Your task to perform on an android device: check battery use Image 0: 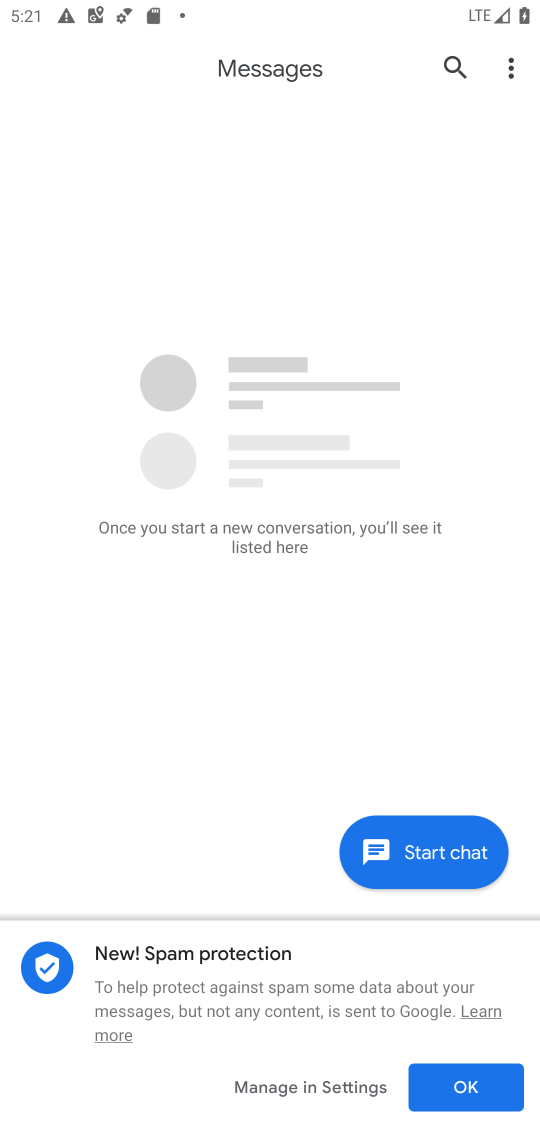
Step 0: press home button
Your task to perform on an android device: check battery use Image 1: 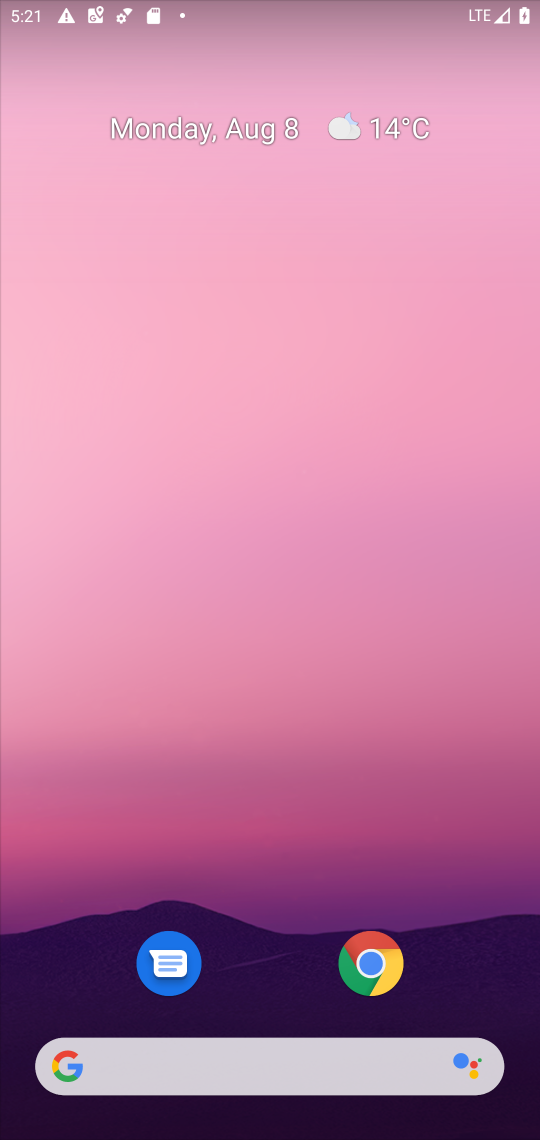
Step 1: drag from (334, 765) to (429, 1)
Your task to perform on an android device: check battery use Image 2: 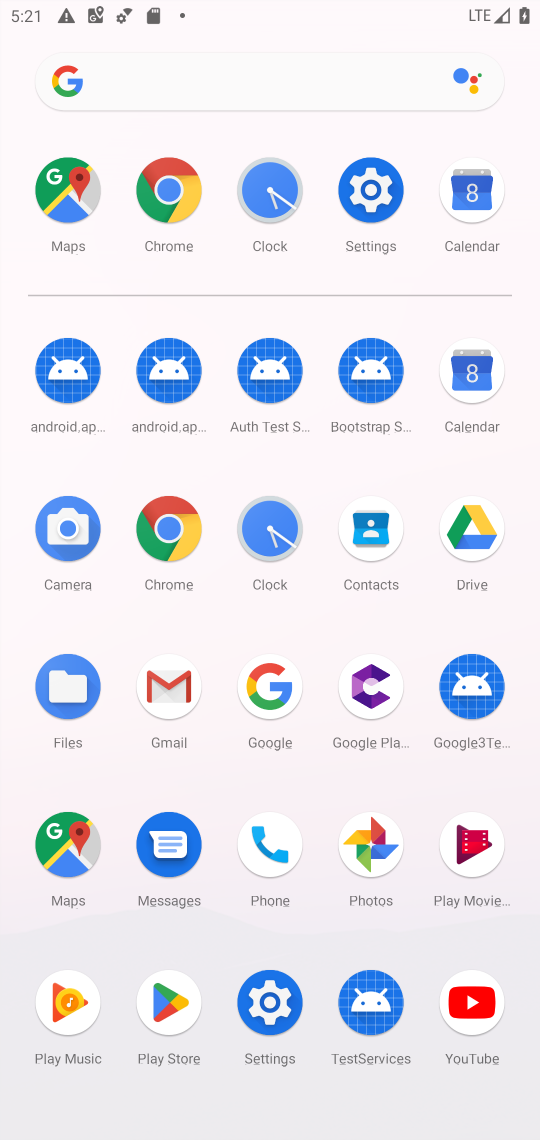
Step 2: click (366, 209)
Your task to perform on an android device: check battery use Image 3: 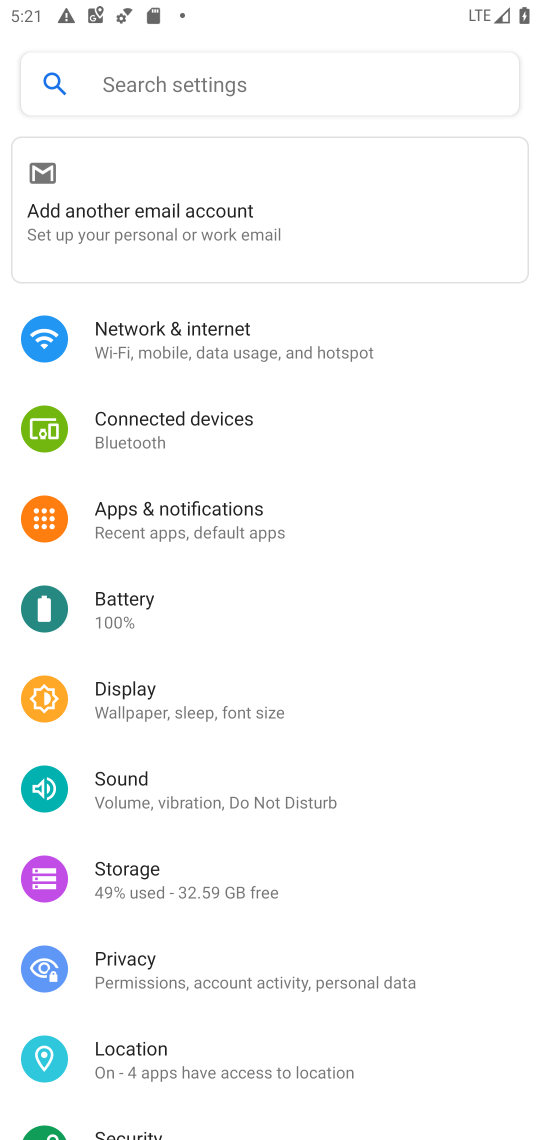
Step 3: click (181, 601)
Your task to perform on an android device: check battery use Image 4: 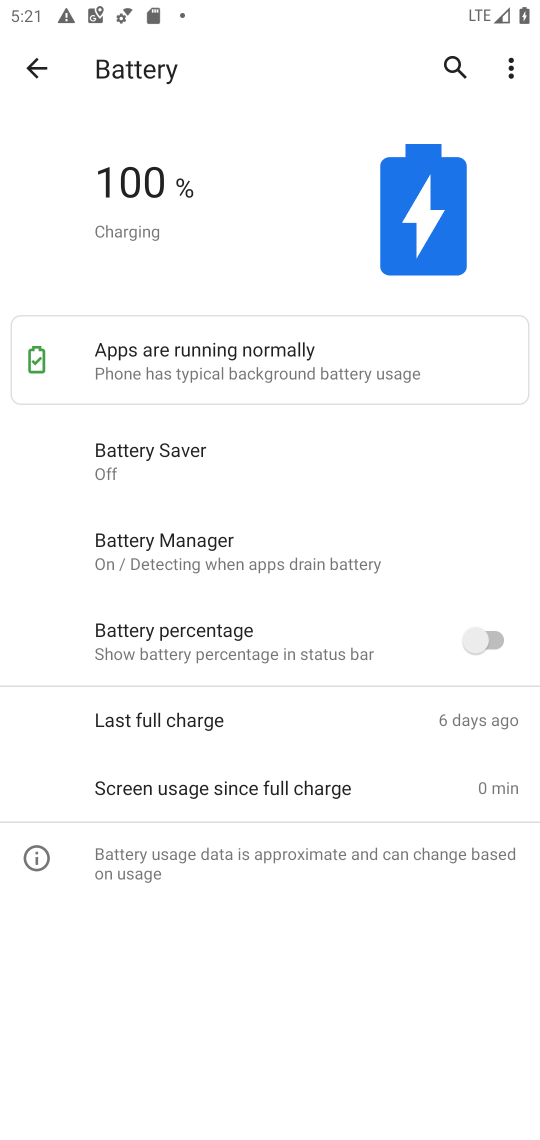
Step 4: click (517, 77)
Your task to perform on an android device: check battery use Image 5: 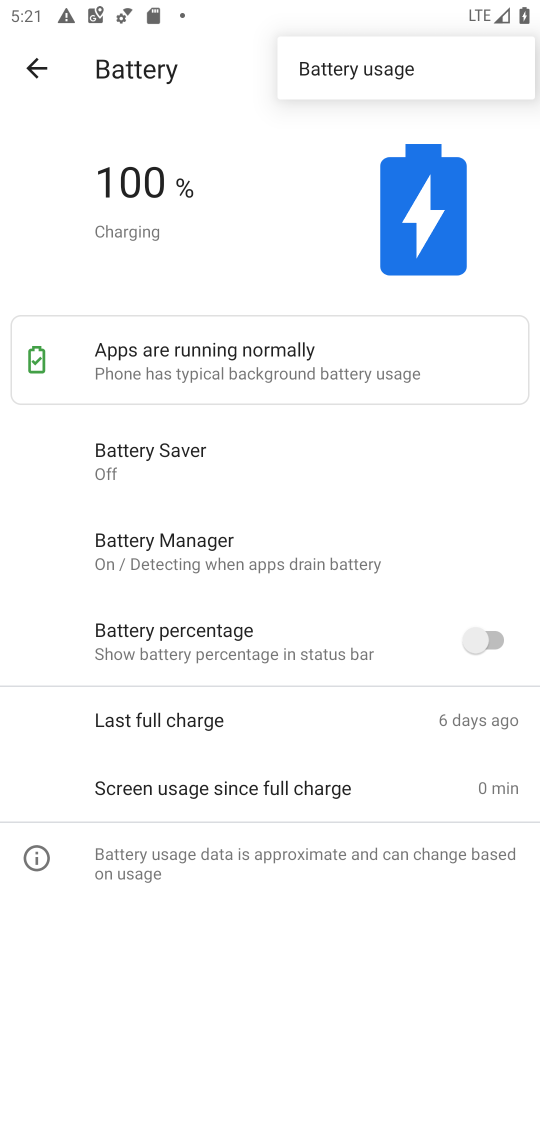
Step 5: click (428, 73)
Your task to perform on an android device: check battery use Image 6: 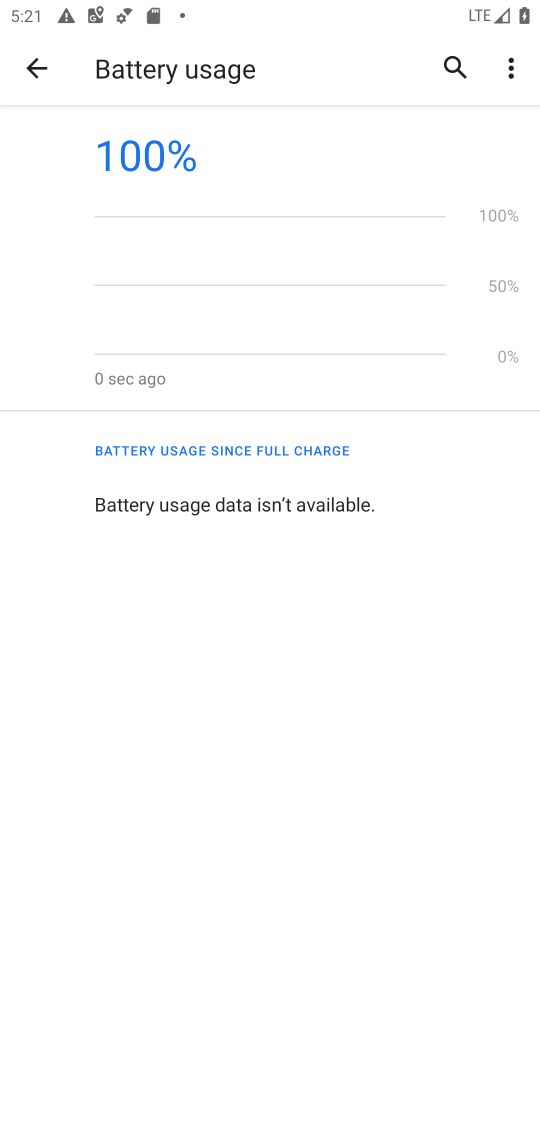
Step 6: task complete